Your task to perform on an android device: turn on javascript in the chrome app Image 0: 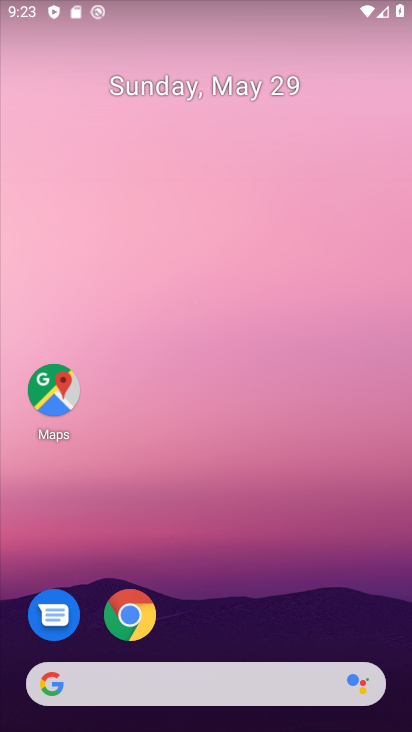
Step 0: click (127, 613)
Your task to perform on an android device: turn on javascript in the chrome app Image 1: 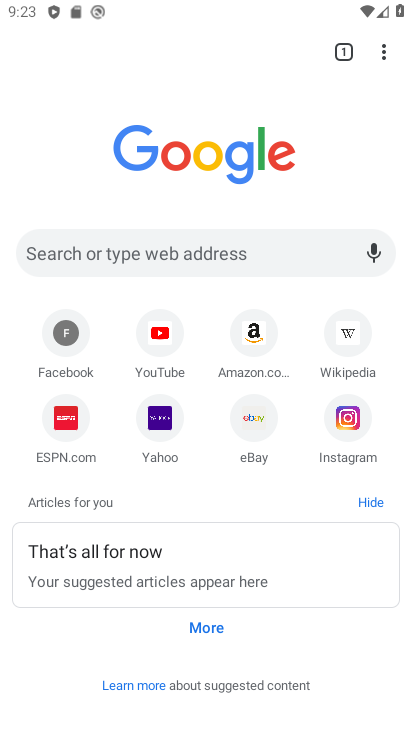
Step 1: click (387, 45)
Your task to perform on an android device: turn on javascript in the chrome app Image 2: 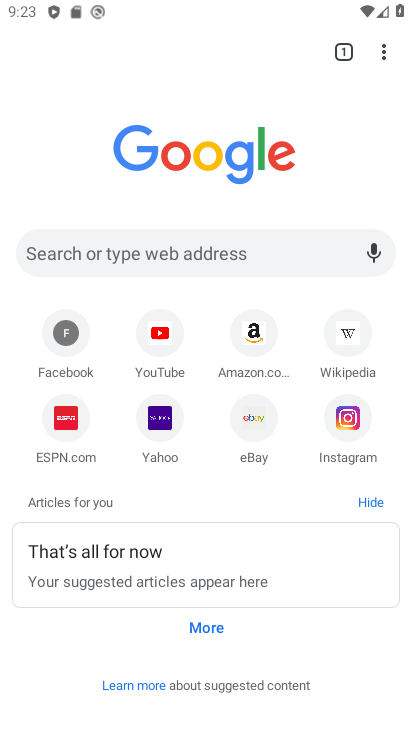
Step 2: drag from (384, 48) to (195, 442)
Your task to perform on an android device: turn on javascript in the chrome app Image 3: 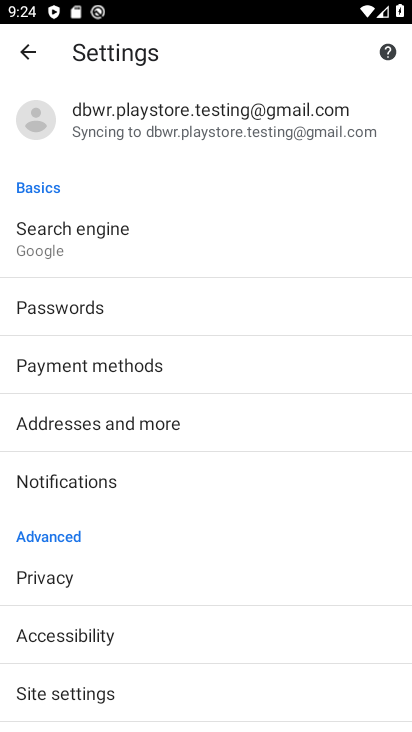
Step 3: click (87, 684)
Your task to perform on an android device: turn on javascript in the chrome app Image 4: 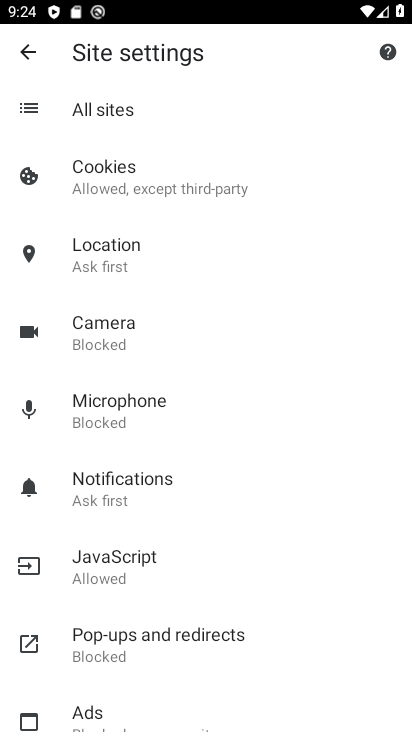
Step 4: click (124, 556)
Your task to perform on an android device: turn on javascript in the chrome app Image 5: 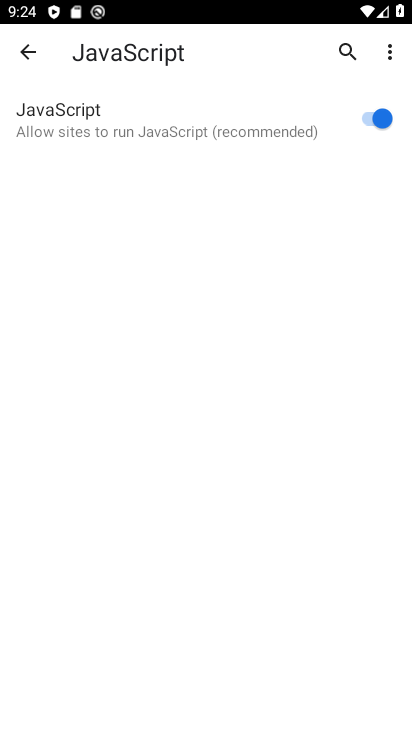
Step 5: task complete